Your task to perform on an android device: Show the shopping cart on newegg. Image 0: 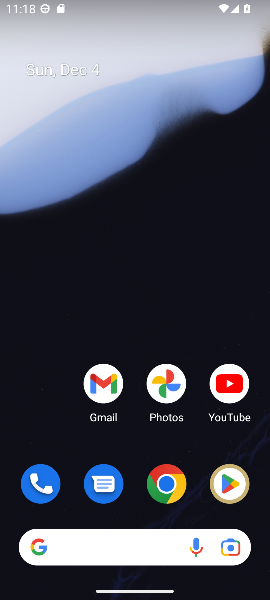
Step 0: click (166, 483)
Your task to perform on an android device: Show the shopping cart on newegg. Image 1: 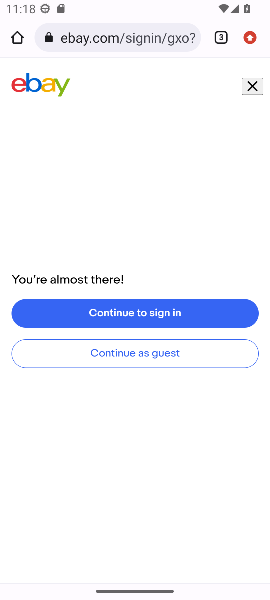
Step 1: click (110, 41)
Your task to perform on an android device: Show the shopping cart on newegg. Image 2: 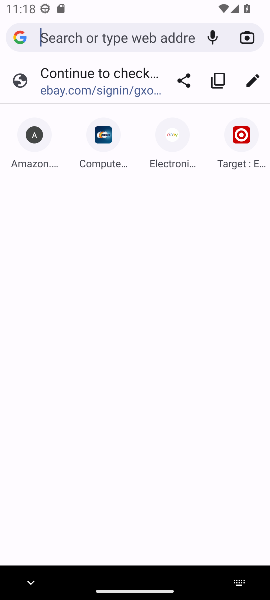
Step 2: click (103, 159)
Your task to perform on an android device: Show the shopping cart on newegg. Image 3: 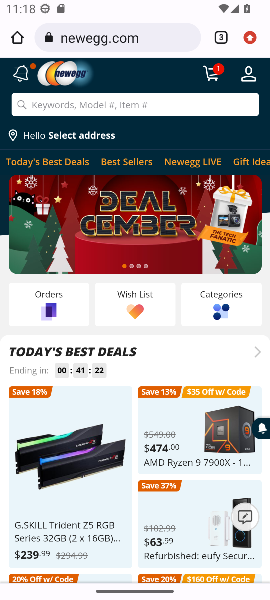
Step 3: click (215, 74)
Your task to perform on an android device: Show the shopping cart on newegg. Image 4: 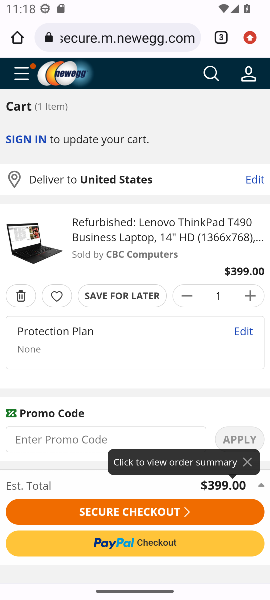
Step 4: task complete